Your task to perform on an android device: allow cookies in the chrome app Image 0: 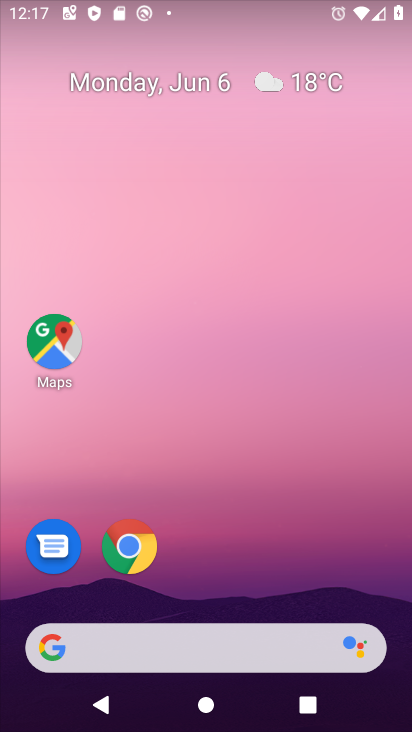
Step 0: click (127, 560)
Your task to perform on an android device: allow cookies in the chrome app Image 1: 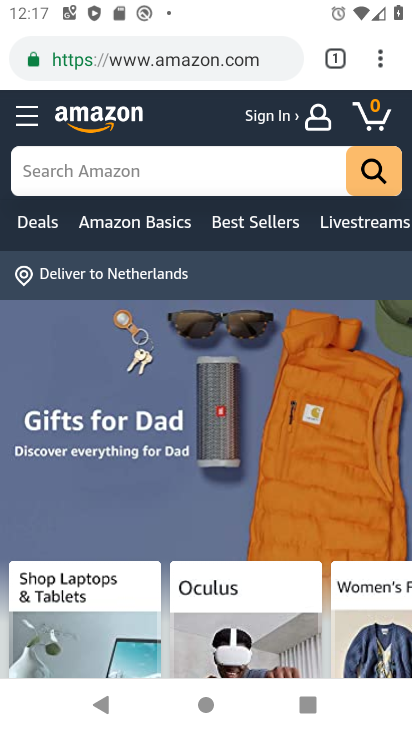
Step 1: click (378, 62)
Your task to perform on an android device: allow cookies in the chrome app Image 2: 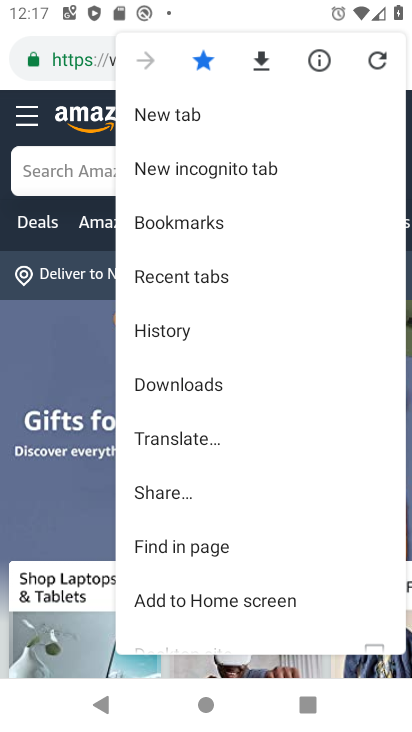
Step 2: drag from (292, 505) to (241, 173)
Your task to perform on an android device: allow cookies in the chrome app Image 3: 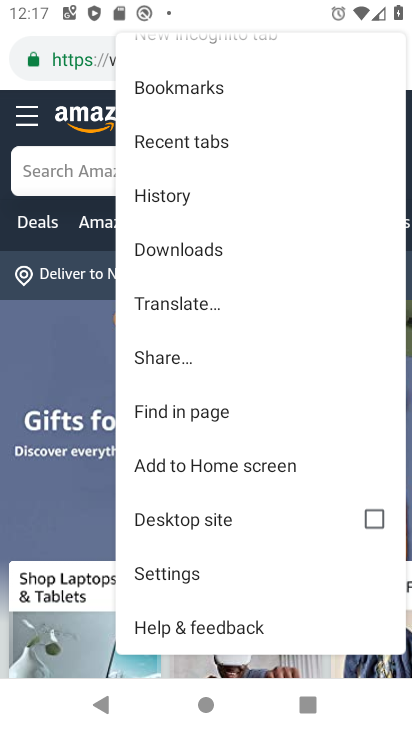
Step 3: click (165, 579)
Your task to perform on an android device: allow cookies in the chrome app Image 4: 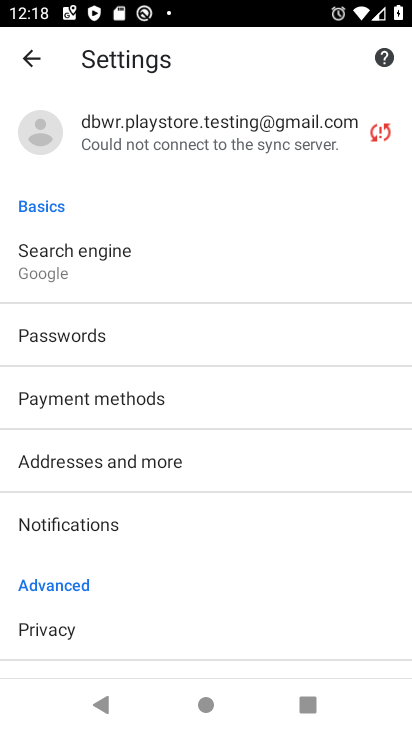
Step 4: drag from (165, 557) to (156, 196)
Your task to perform on an android device: allow cookies in the chrome app Image 5: 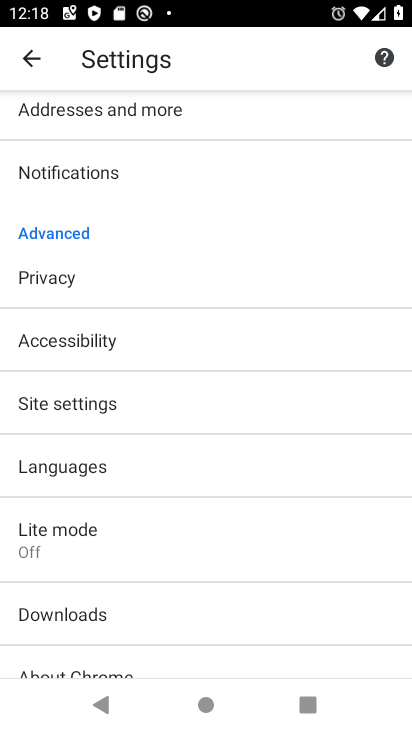
Step 5: click (67, 412)
Your task to perform on an android device: allow cookies in the chrome app Image 6: 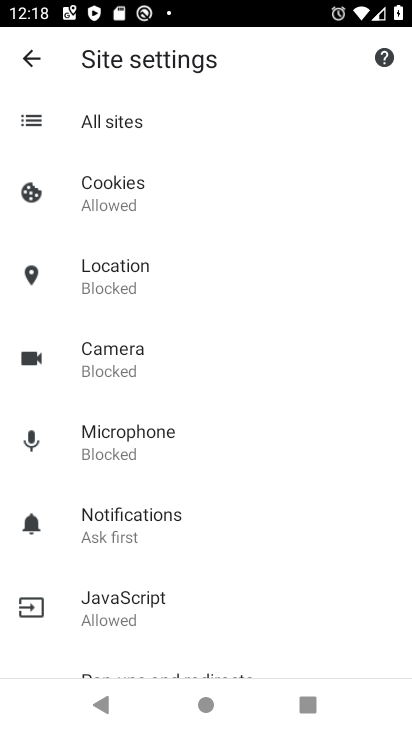
Step 6: click (121, 189)
Your task to perform on an android device: allow cookies in the chrome app Image 7: 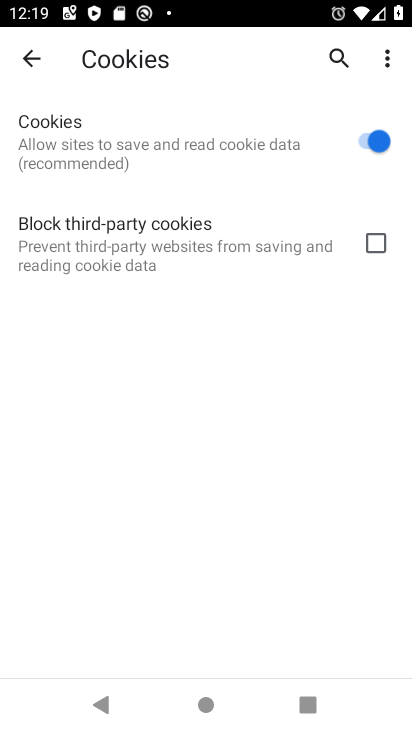
Step 7: task complete